Your task to perform on an android device: Do I have any events tomorrow? Image 0: 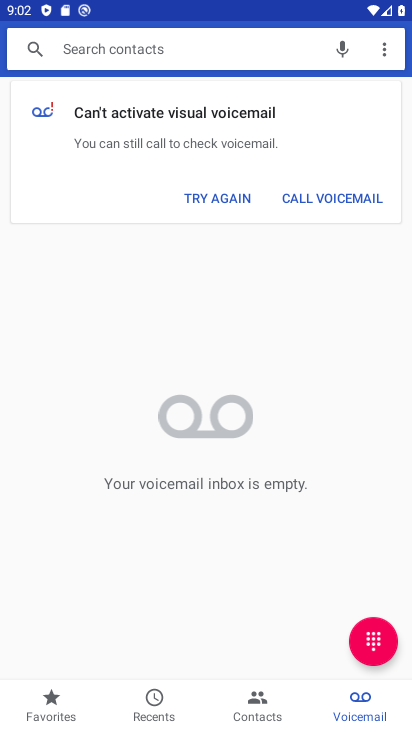
Step 0: press home button
Your task to perform on an android device: Do I have any events tomorrow? Image 1: 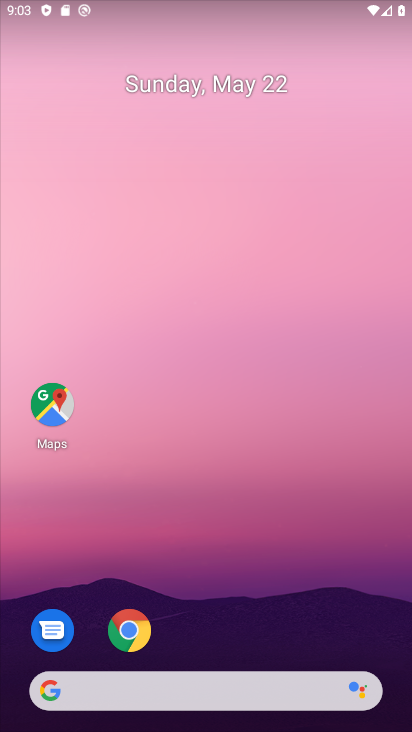
Step 1: drag from (395, 514) to (395, 86)
Your task to perform on an android device: Do I have any events tomorrow? Image 2: 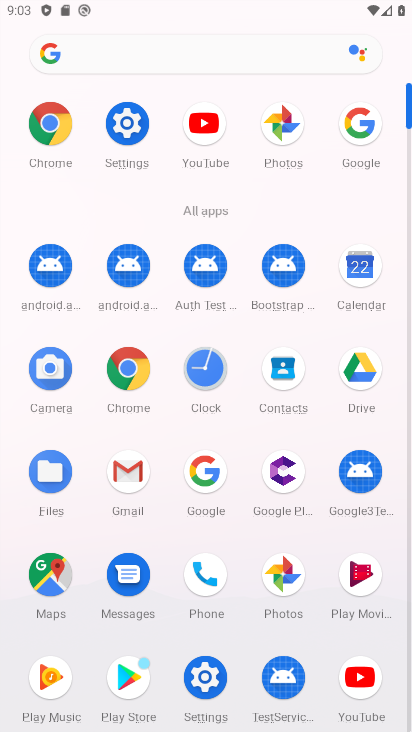
Step 2: click (350, 275)
Your task to perform on an android device: Do I have any events tomorrow? Image 3: 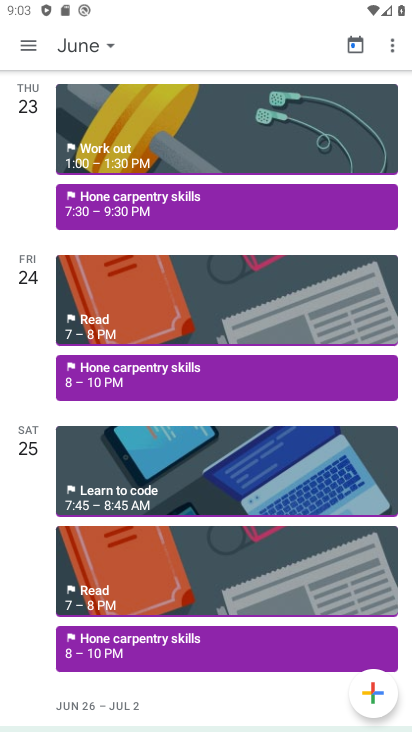
Step 3: click (106, 44)
Your task to perform on an android device: Do I have any events tomorrow? Image 4: 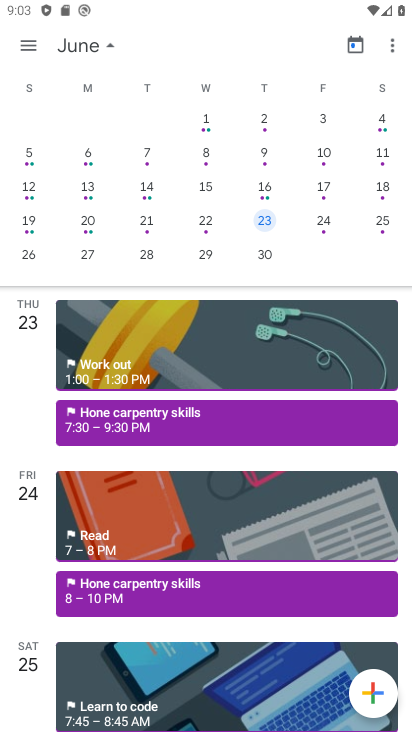
Step 4: drag from (9, 136) to (322, 74)
Your task to perform on an android device: Do I have any events tomorrow? Image 5: 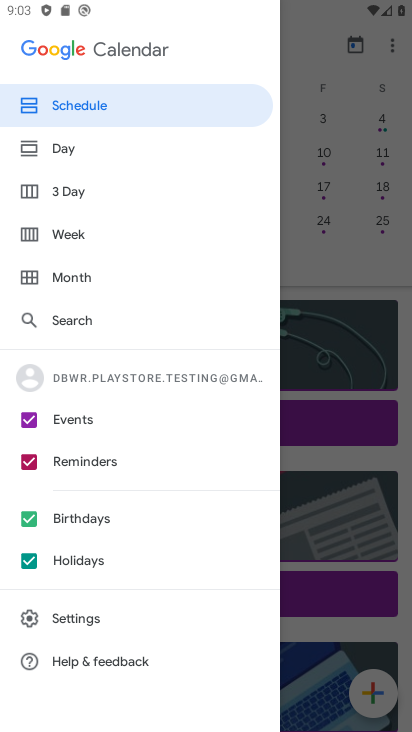
Step 5: press back button
Your task to perform on an android device: Do I have any events tomorrow? Image 6: 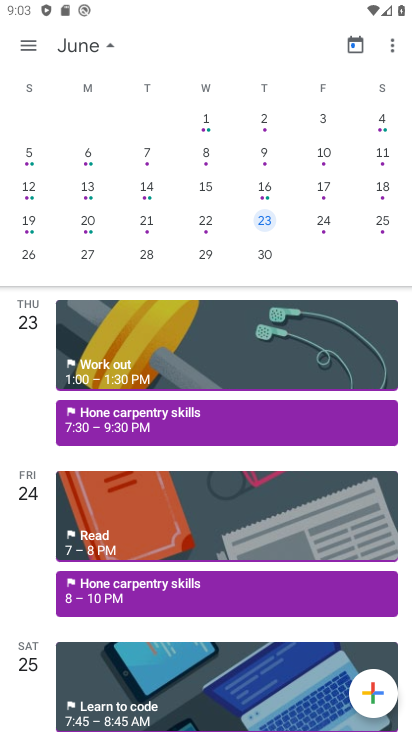
Step 6: drag from (6, 201) to (350, 146)
Your task to perform on an android device: Do I have any events tomorrow? Image 7: 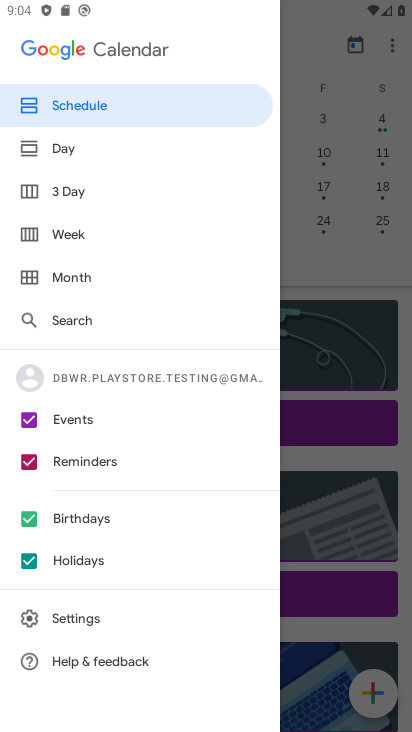
Step 7: press back button
Your task to perform on an android device: Do I have any events tomorrow? Image 8: 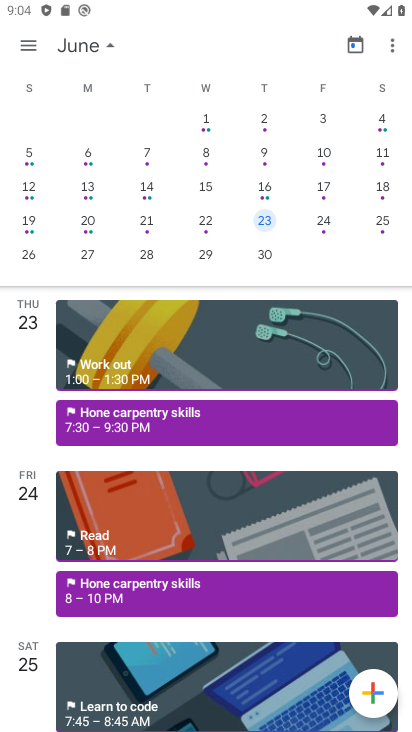
Step 8: drag from (10, 127) to (40, 97)
Your task to perform on an android device: Do I have any events tomorrow? Image 9: 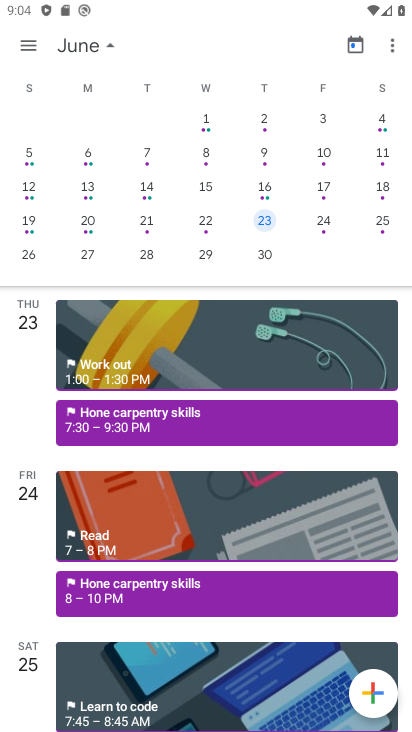
Step 9: drag from (6, 126) to (308, 112)
Your task to perform on an android device: Do I have any events tomorrow? Image 10: 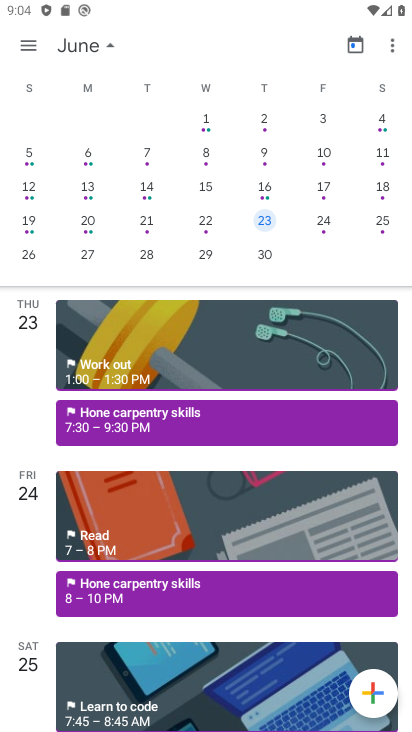
Step 10: drag from (5, 160) to (385, 157)
Your task to perform on an android device: Do I have any events tomorrow? Image 11: 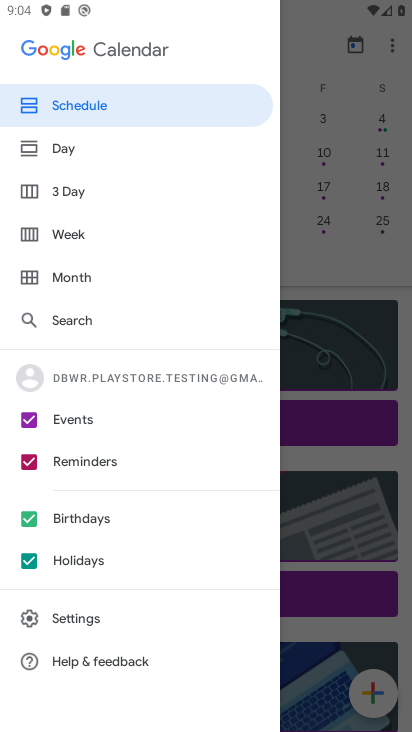
Step 11: press back button
Your task to perform on an android device: Do I have any events tomorrow? Image 12: 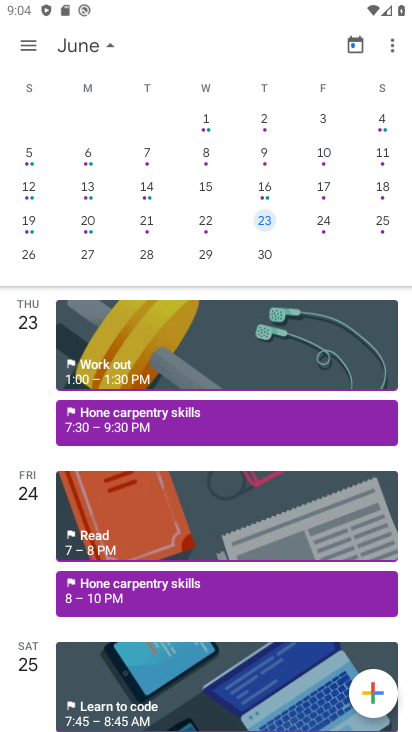
Step 12: drag from (52, 115) to (341, 97)
Your task to perform on an android device: Do I have any events tomorrow? Image 13: 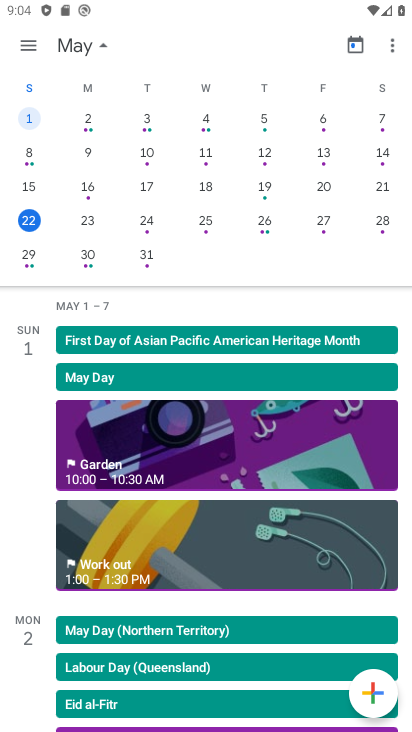
Step 13: click (87, 218)
Your task to perform on an android device: Do I have any events tomorrow? Image 14: 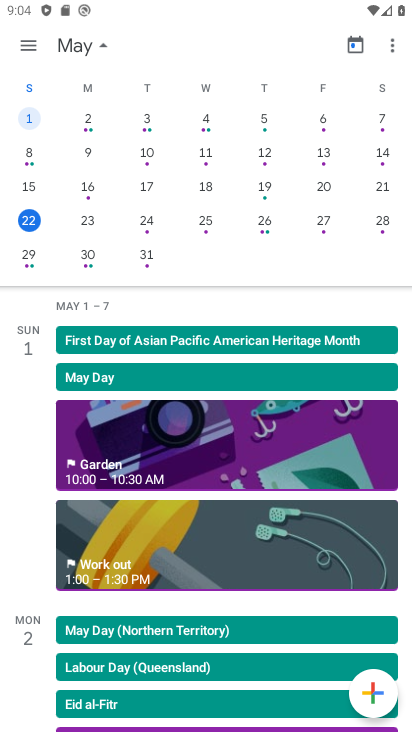
Step 14: click (87, 216)
Your task to perform on an android device: Do I have any events tomorrow? Image 15: 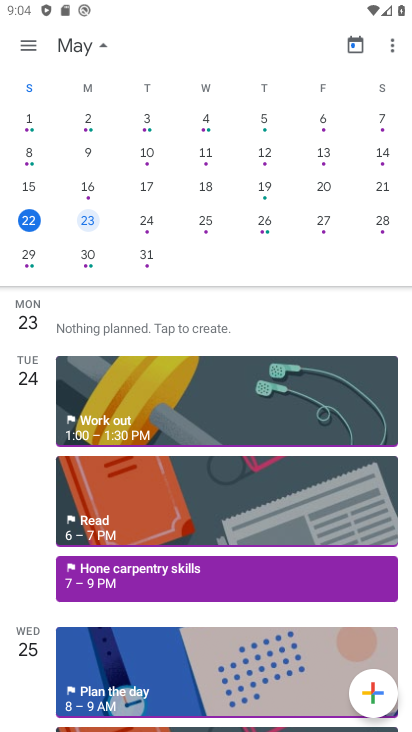
Step 15: click (29, 44)
Your task to perform on an android device: Do I have any events tomorrow? Image 16: 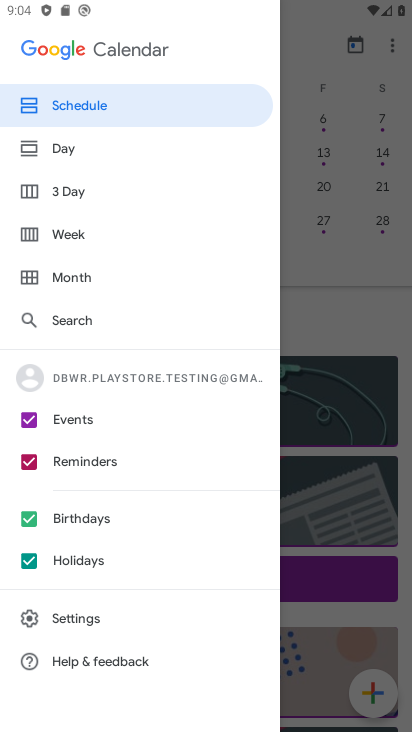
Step 16: click (55, 141)
Your task to perform on an android device: Do I have any events tomorrow? Image 17: 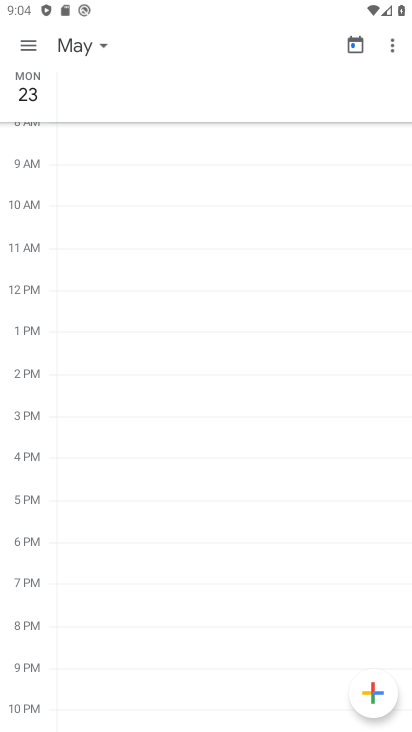
Step 17: task complete